Your task to perform on an android device: change the clock display to show seconds Image 0: 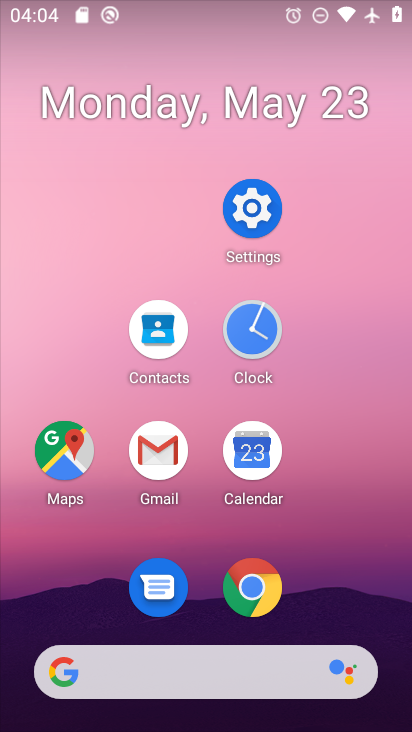
Step 0: click (261, 205)
Your task to perform on an android device: change the clock display to show seconds Image 1: 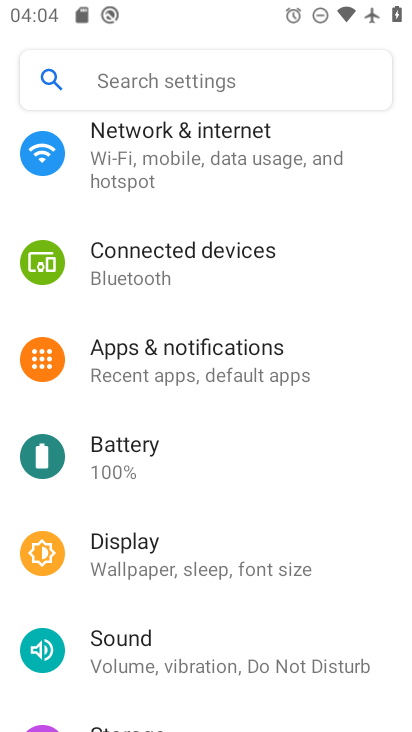
Step 1: press home button
Your task to perform on an android device: change the clock display to show seconds Image 2: 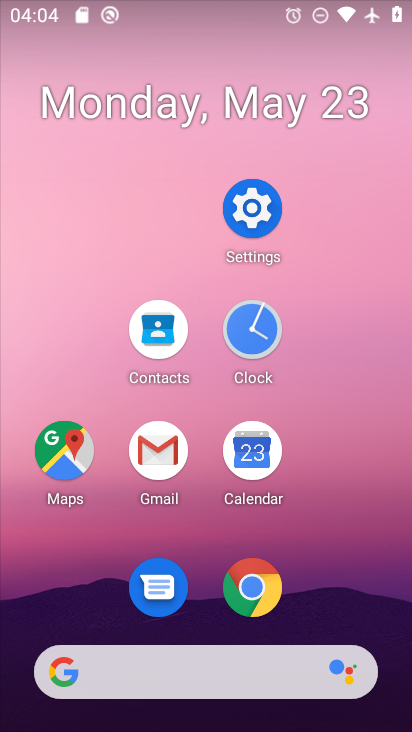
Step 2: click (242, 342)
Your task to perform on an android device: change the clock display to show seconds Image 3: 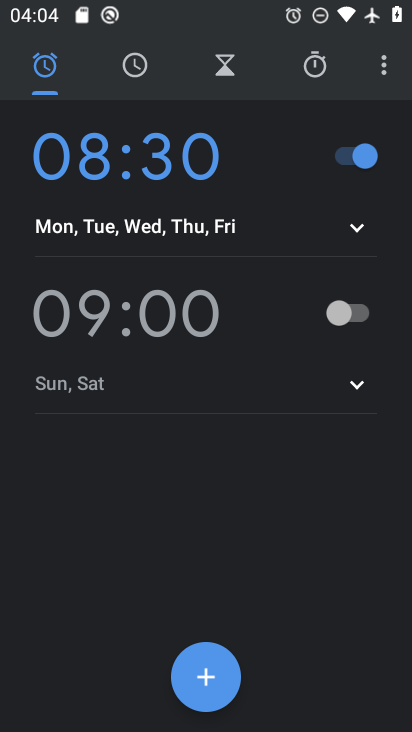
Step 3: click (393, 68)
Your task to perform on an android device: change the clock display to show seconds Image 4: 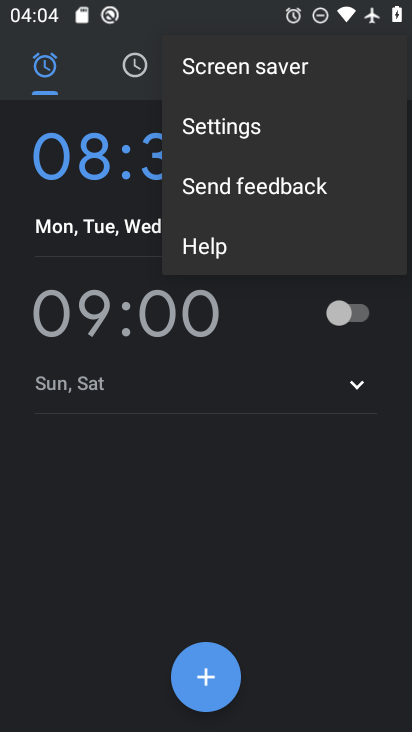
Step 4: click (335, 120)
Your task to perform on an android device: change the clock display to show seconds Image 5: 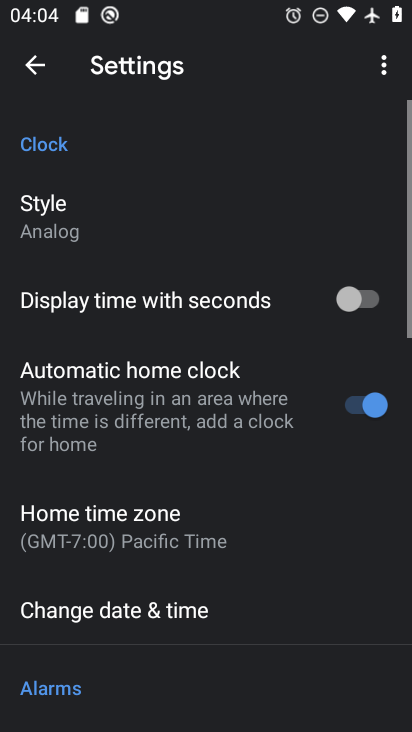
Step 5: click (398, 297)
Your task to perform on an android device: change the clock display to show seconds Image 6: 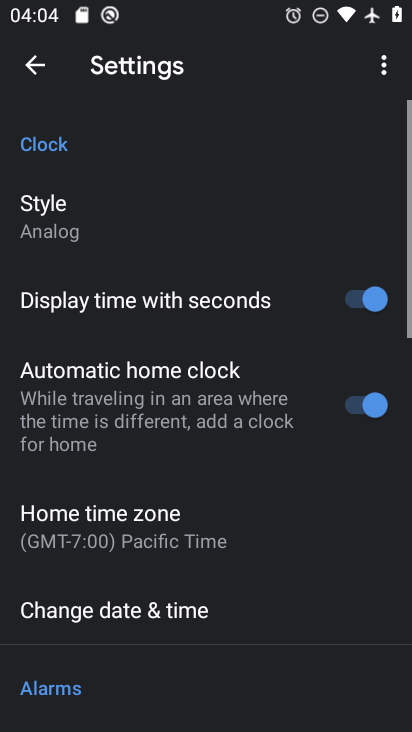
Step 6: task complete